Your task to perform on an android device: Show me recent news Image 0: 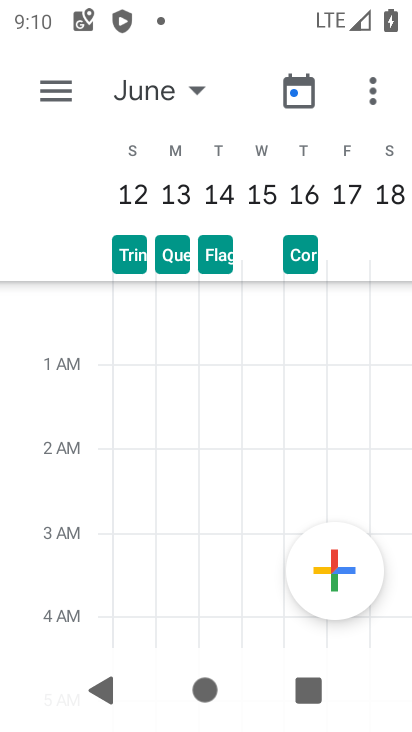
Step 0: press home button
Your task to perform on an android device: Show me recent news Image 1: 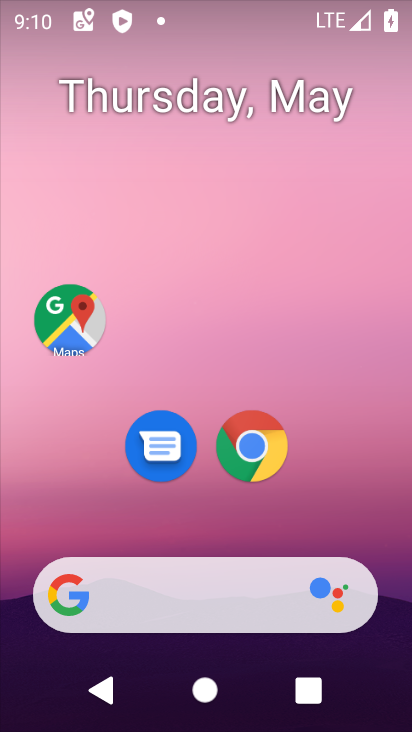
Step 1: task complete